Your task to perform on an android device: set the timer Image 0: 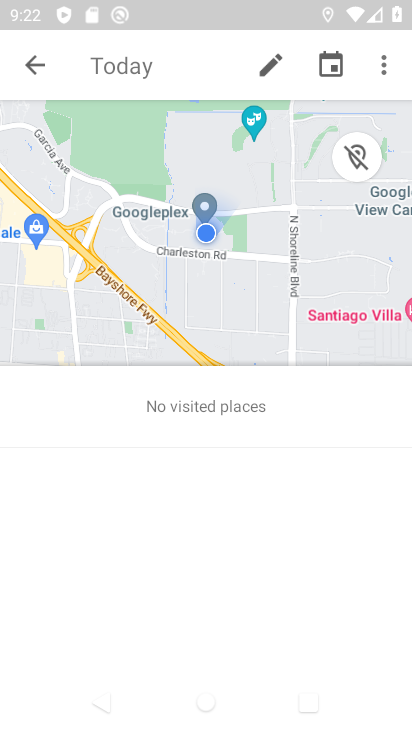
Step 0: press home button
Your task to perform on an android device: set the timer Image 1: 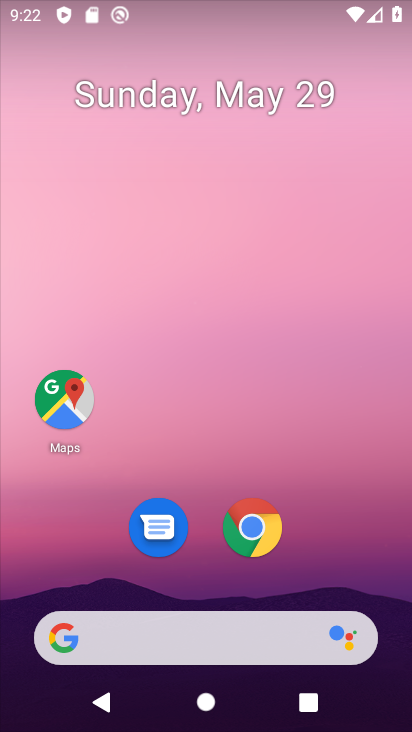
Step 1: drag from (198, 634) to (340, 96)
Your task to perform on an android device: set the timer Image 2: 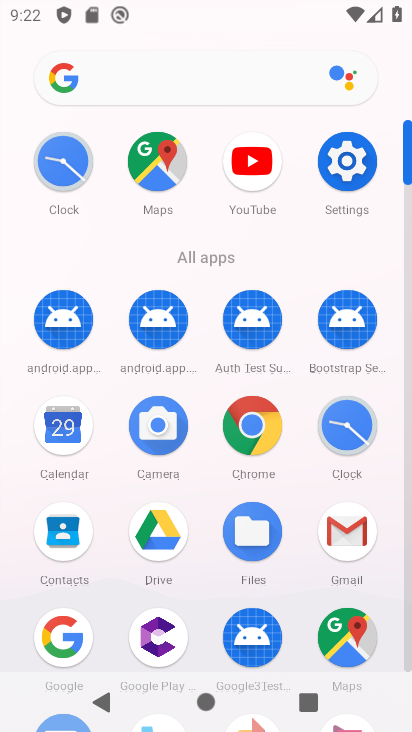
Step 2: click (59, 164)
Your task to perform on an android device: set the timer Image 3: 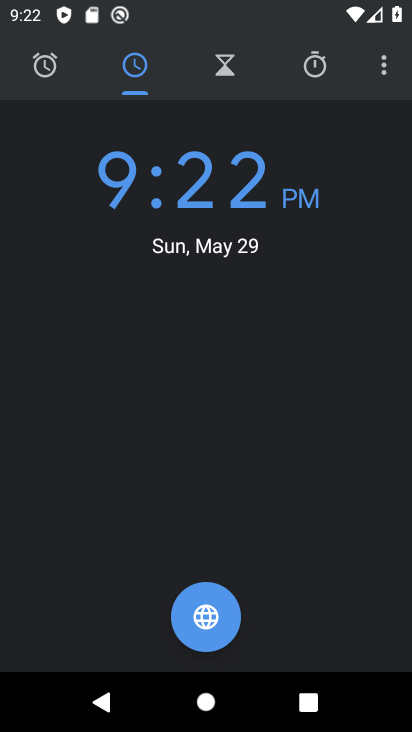
Step 3: click (221, 66)
Your task to perform on an android device: set the timer Image 4: 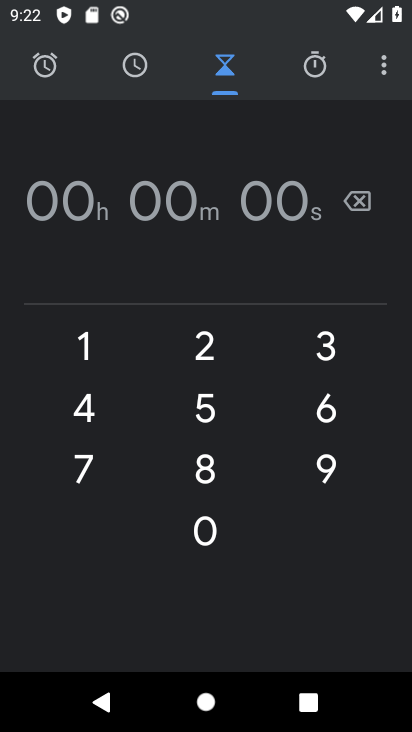
Step 4: click (196, 342)
Your task to perform on an android device: set the timer Image 5: 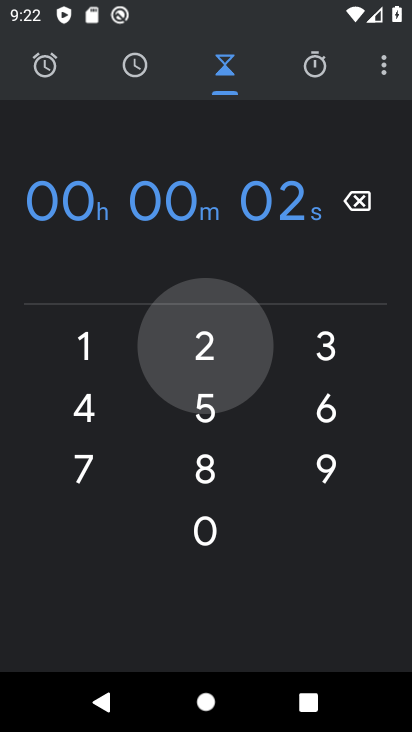
Step 5: click (328, 353)
Your task to perform on an android device: set the timer Image 6: 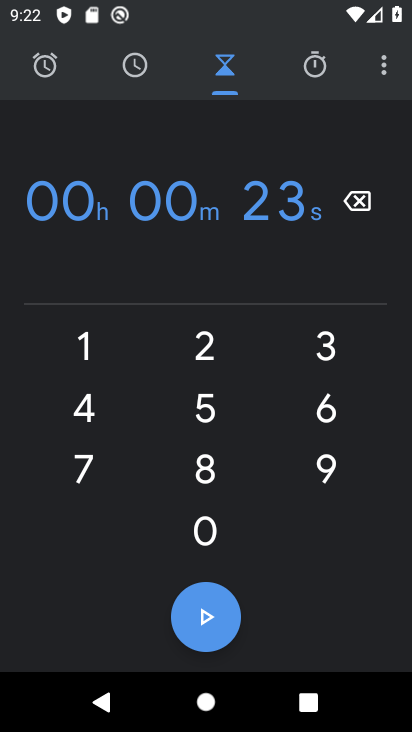
Step 6: click (212, 619)
Your task to perform on an android device: set the timer Image 7: 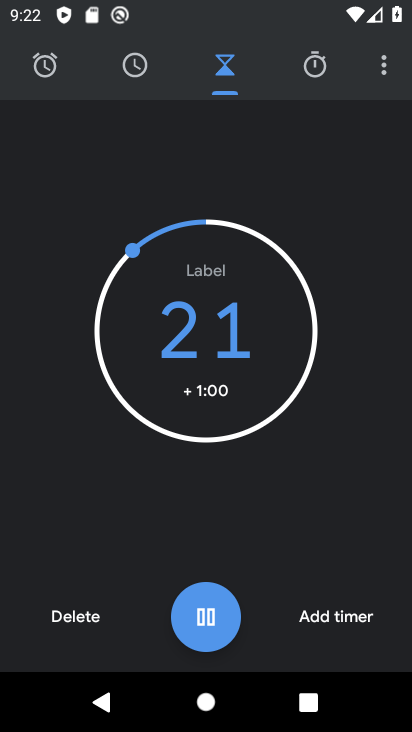
Step 7: click (210, 617)
Your task to perform on an android device: set the timer Image 8: 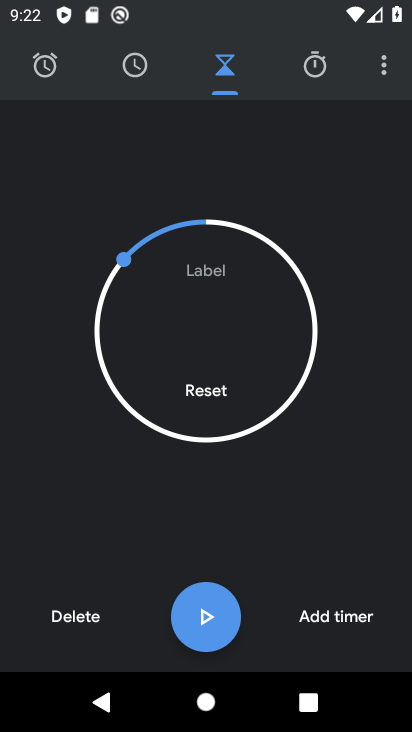
Step 8: task complete